Your task to perform on an android device: toggle wifi Image 0: 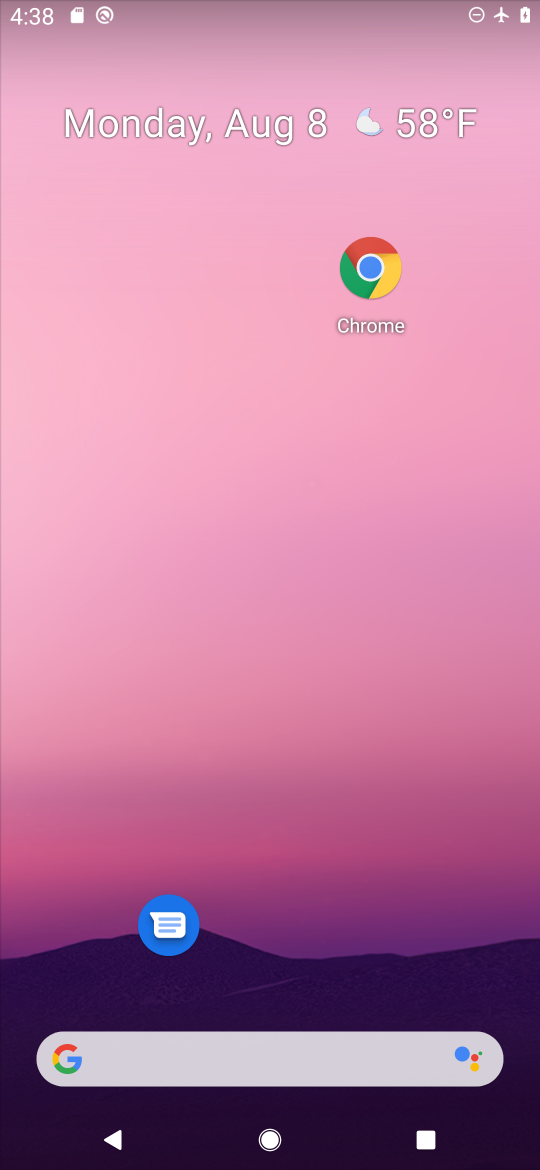
Step 0: drag from (275, 939) to (275, 261)
Your task to perform on an android device: toggle wifi Image 1: 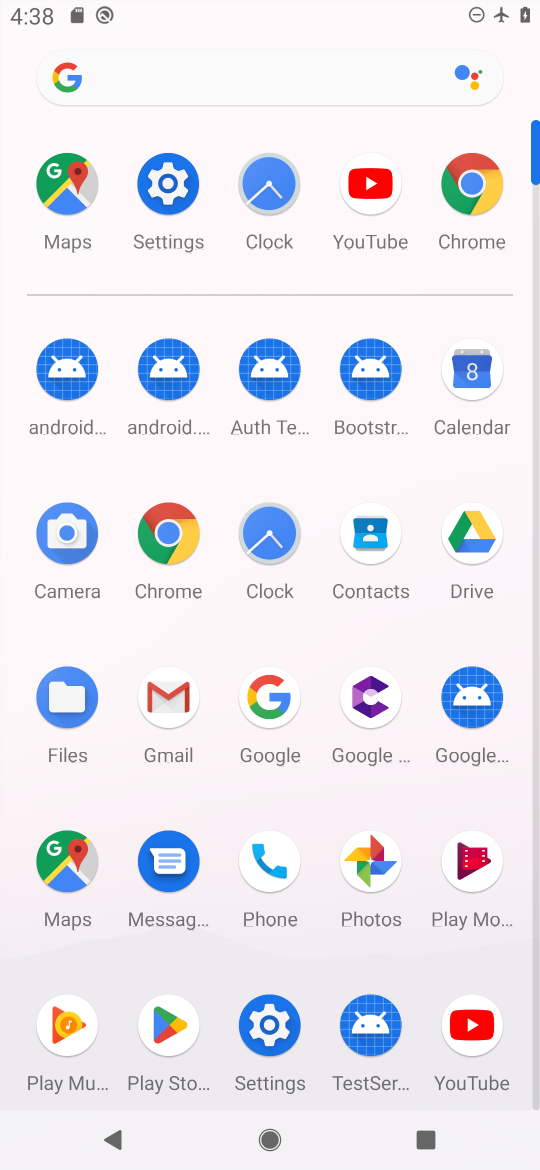
Step 1: click (157, 187)
Your task to perform on an android device: toggle wifi Image 2: 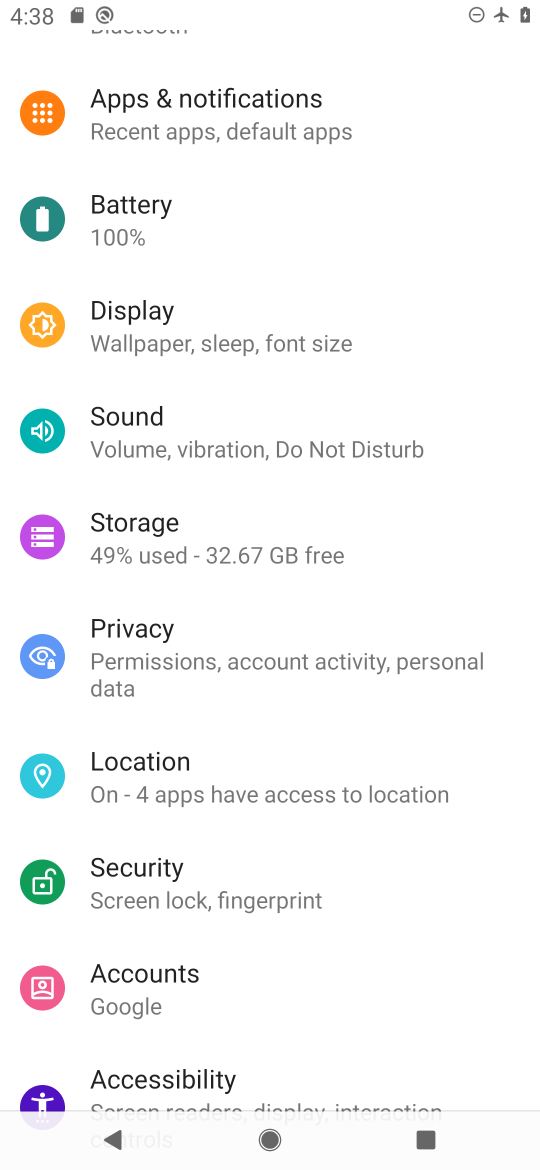
Step 2: drag from (150, 232) to (171, 752)
Your task to perform on an android device: toggle wifi Image 3: 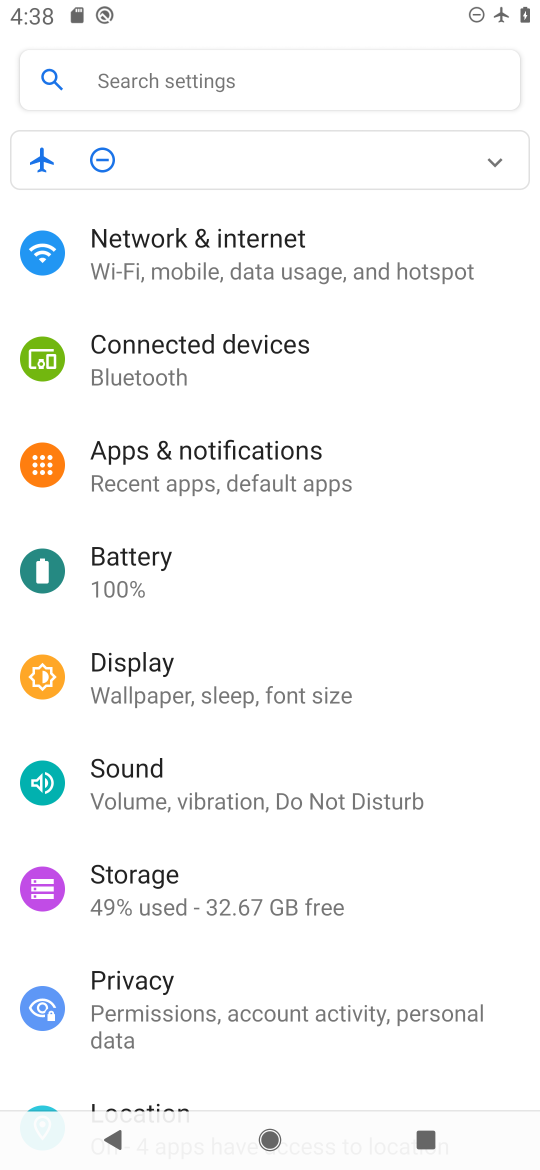
Step 3: drag from (177, 241) to (172, 823)
Your task to perform on an android device: toggle wifi Image 4: 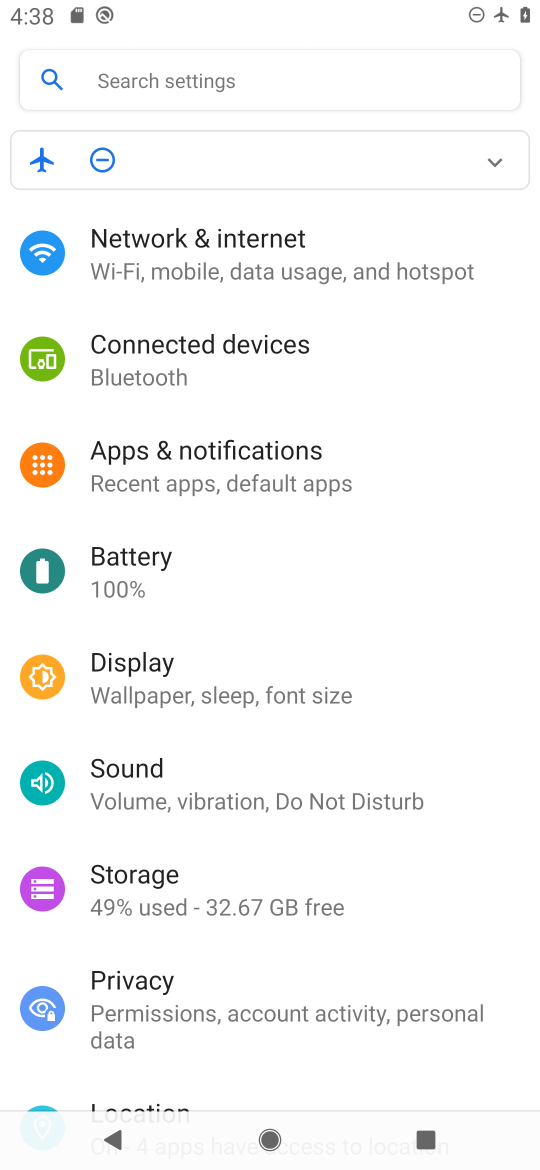
Step 4: click (165, 258)
Your task to perform on an android device: toggle wifi Image 5: 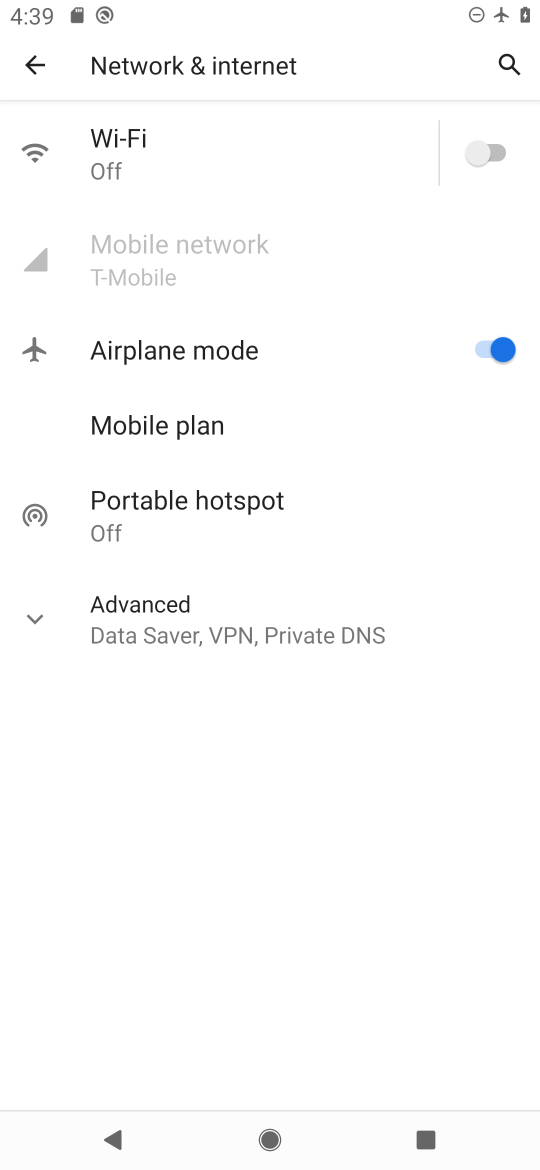
Step 5: click (496, 141)
Your task to perform on an android device: toggle wifi Image 6: 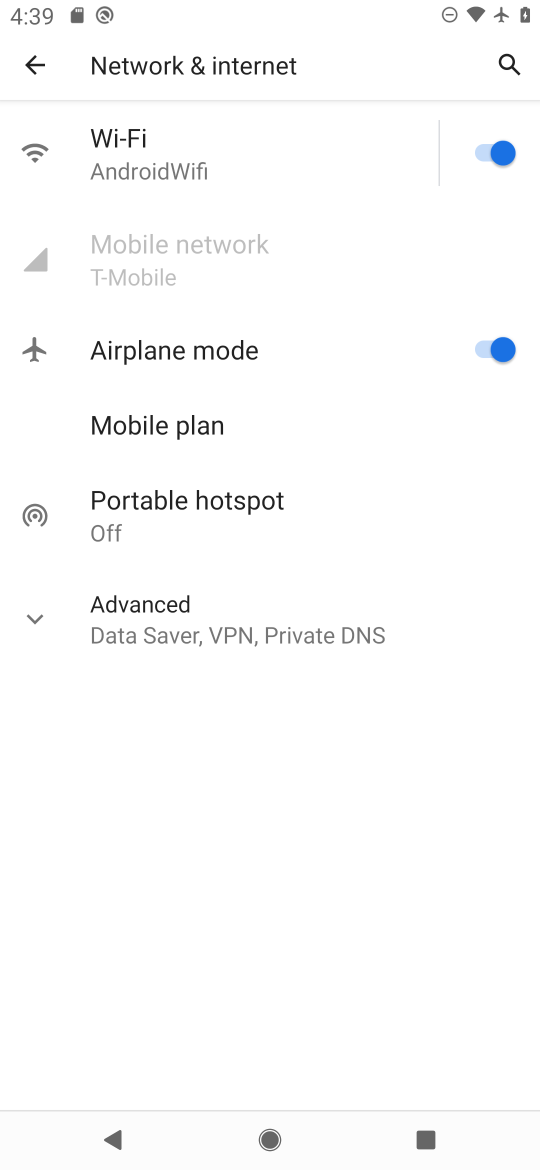
Step 6: task complete